Your task to perform on an android device: Open ESPN.com Image 0: 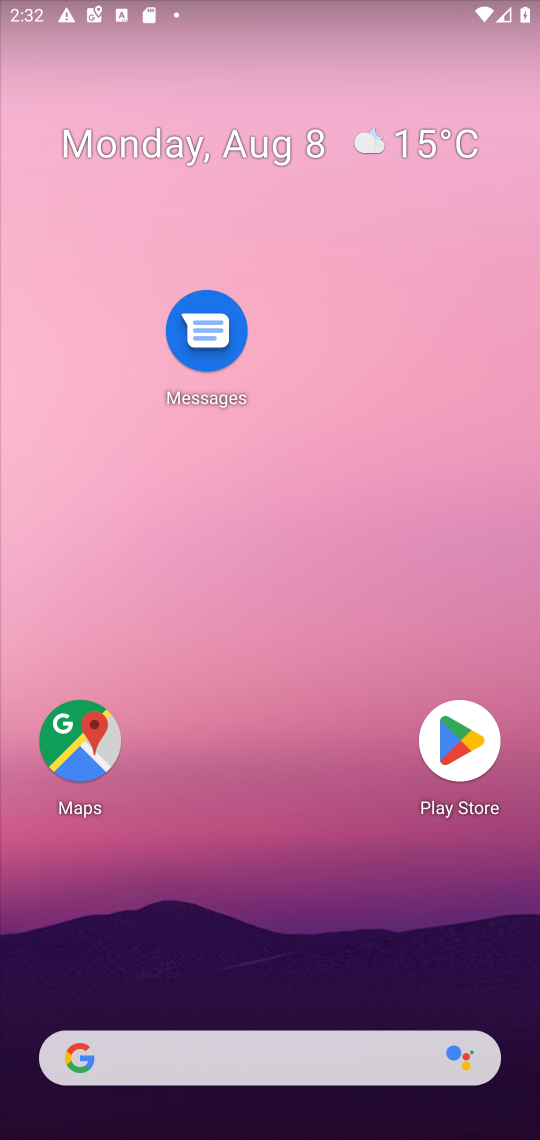
Step 0: drag from (291, 1058) to (298, 215)
Your task to perform on an android device: Open ESPN.com Image 1: 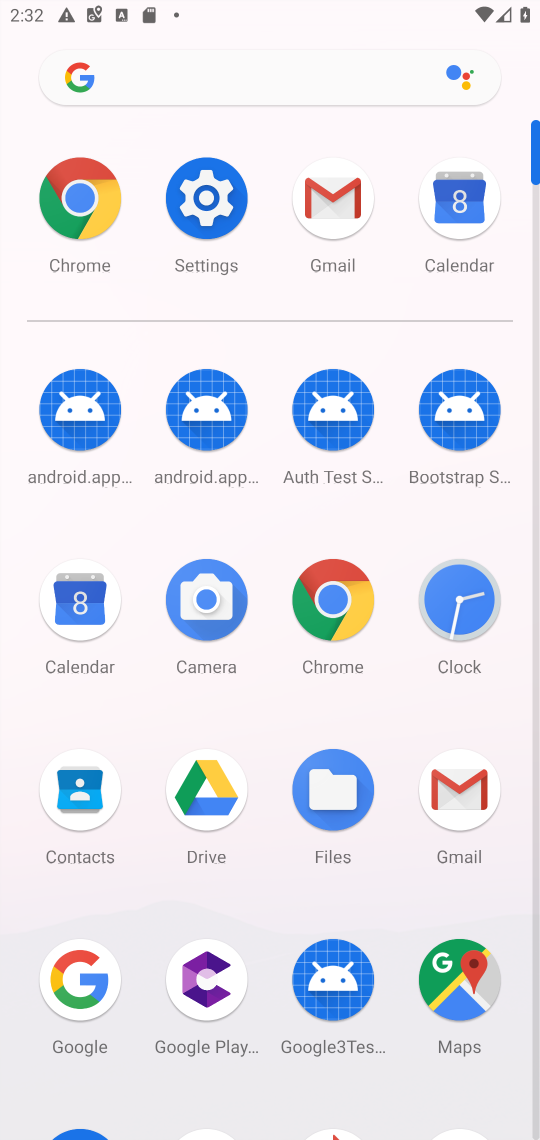
Step 1: click (332, 607)
Your task to perform on an android device: Open ESPN.com Image 2: 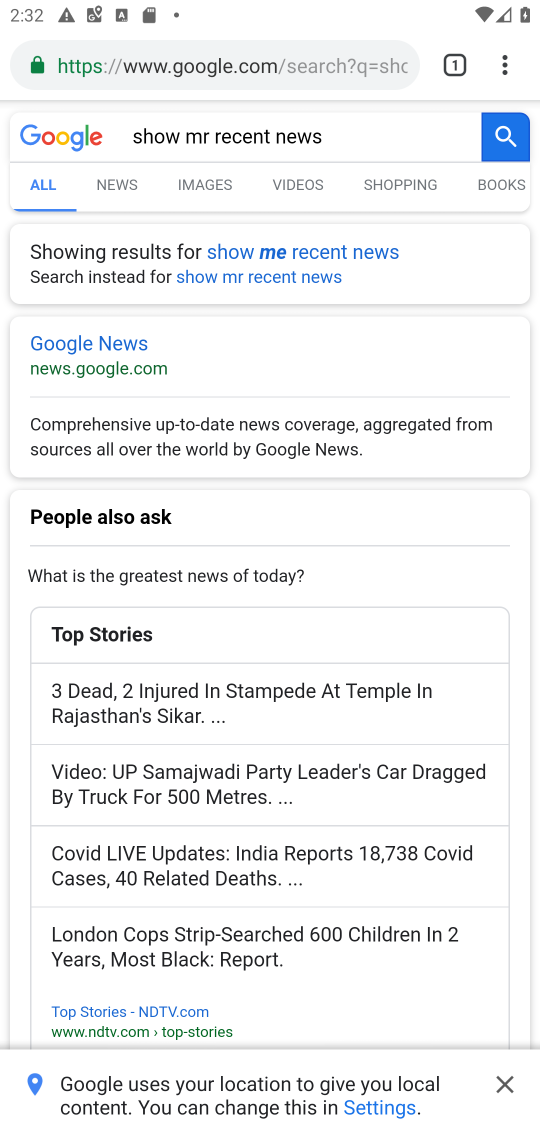
Step 2: click (274, 71)
Your task to perform on an android device: Open ESPN.com Image 3: 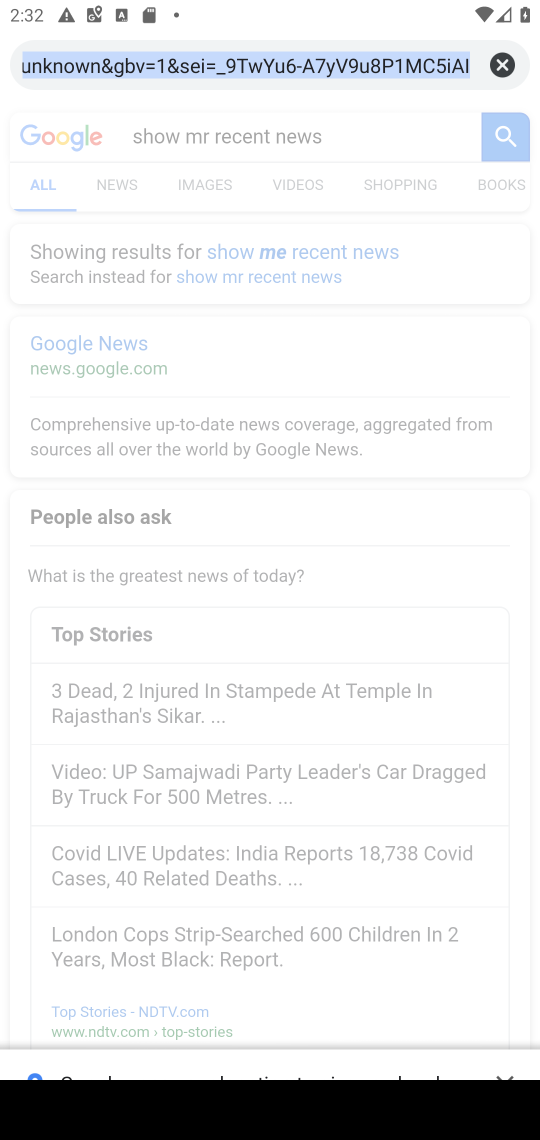
Step 3: click (504, 54)
Your task to perform on an android device: Open ESPN.com Image 4: 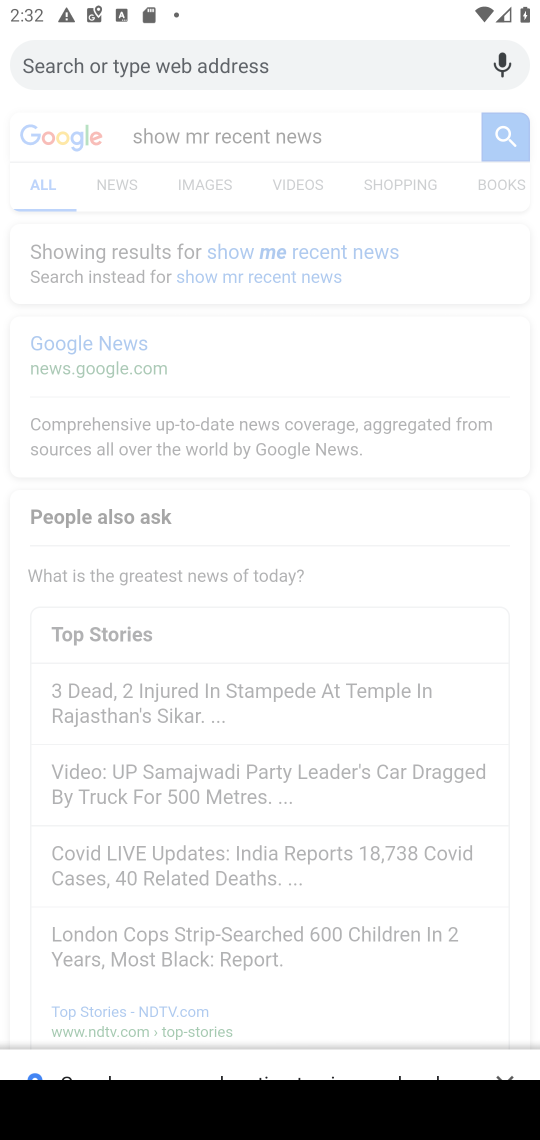
Step 4: type "espn.com"
Your task to perform on an android device: Open ESPN.com Image 5: 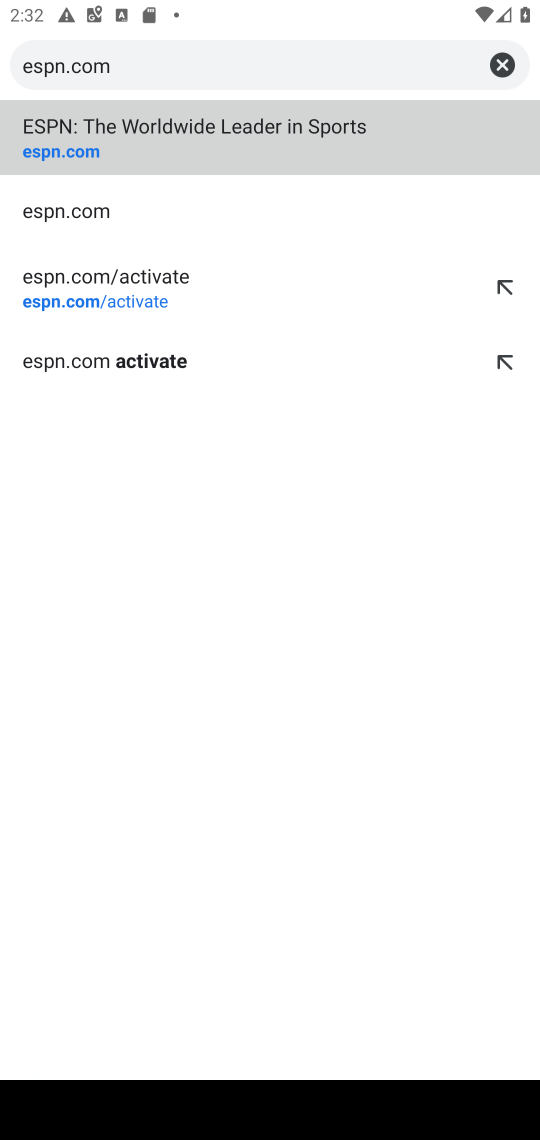
Step 5: click (191, 159)
Your task to perform on an android device: Open ESPN.com Image 6: 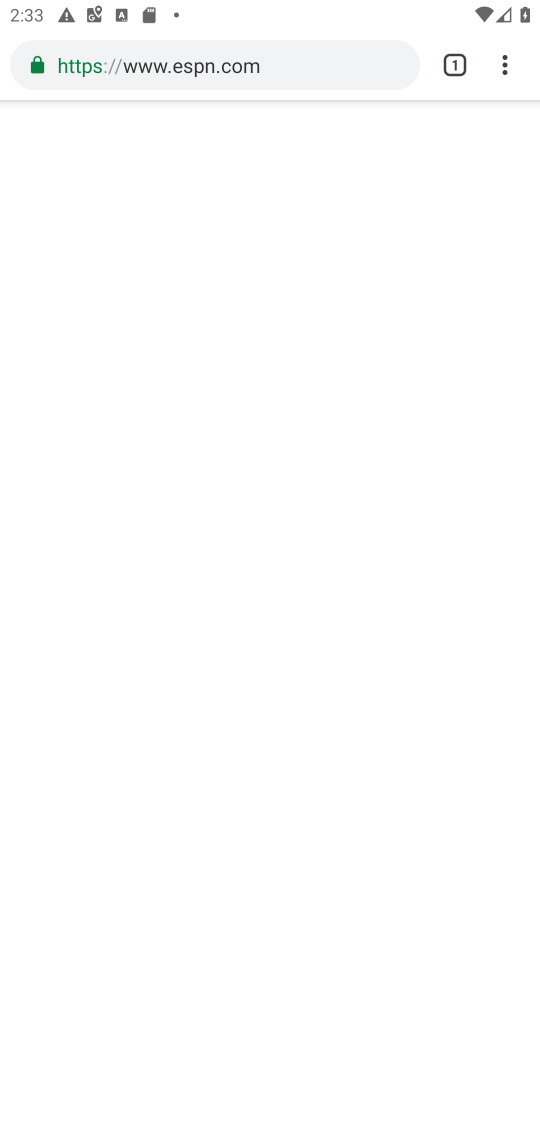
Step 6: task complete